Your task to perform on an android device: toggle javascript in the chrome app Image 0: 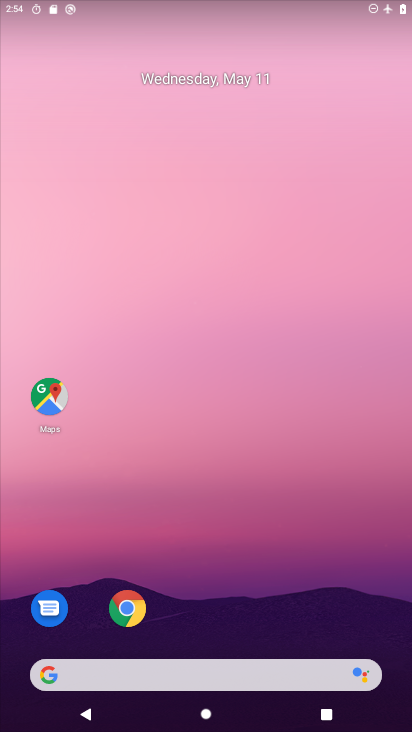
Step 0: drag from (316, 286) to (313, 177)
Your task to perform on an android device: toggle javascript in the chrome app Image 1: 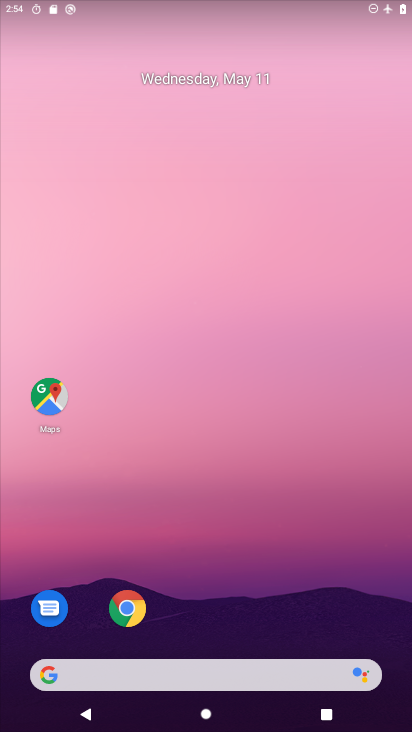
Step 1: click (133, 623)
Your task to perform on an android device: toggle javascript in the chrome app Image 2: 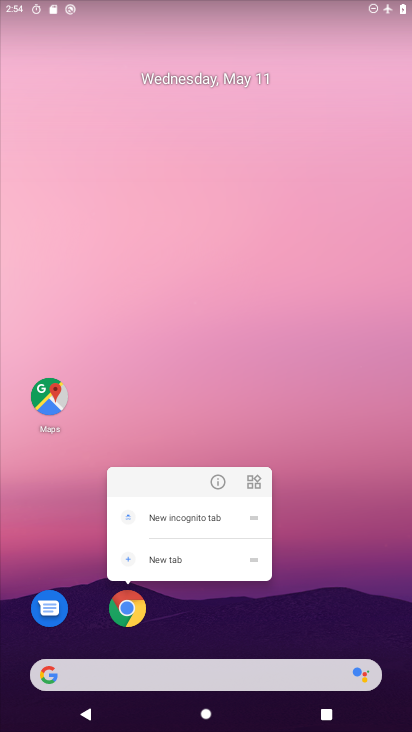
Step 2: click (124, 617)
Your task to perform on an android device: toggle javascript in the chrome app Image 3: 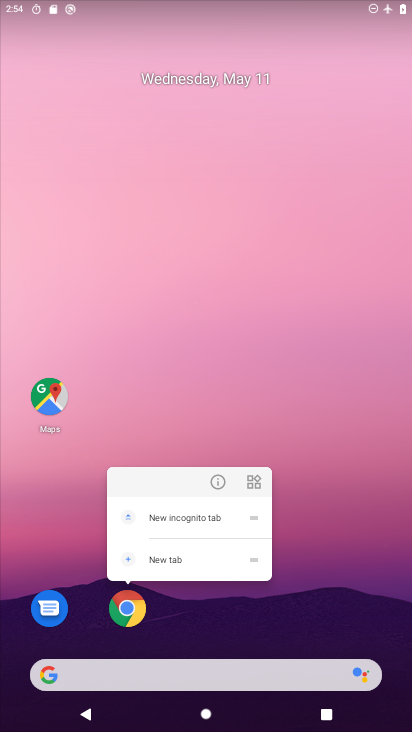
Step 3: click (123, 616)
Your task to perform on an android device: toggle javascript in the chrome app Image 4: 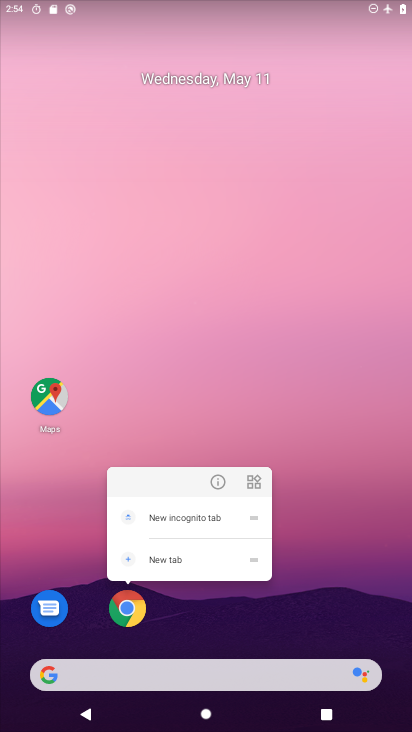
Step 4: click (125, 616)
Your task to perform on an android device: toggle javascript in the chrome app Image 5: 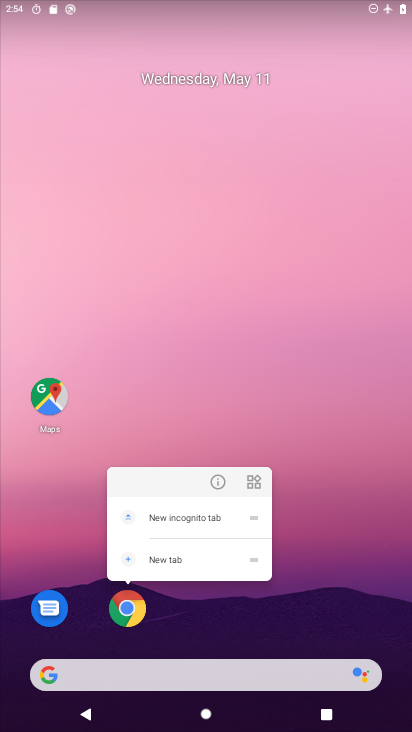
Step 5: click (126, 610)
Your task to perform on an android device: toggle javascript in the chrome app Image 6: 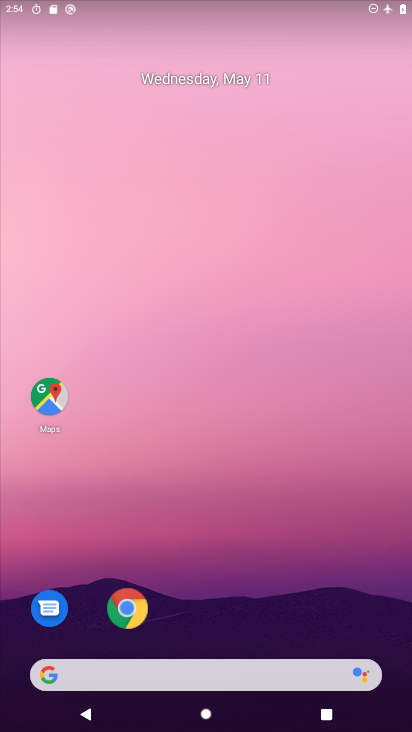
Step 6: click (126, 610)
Your task to perform on an android device: toggle javascript in the chrome app Image 7: 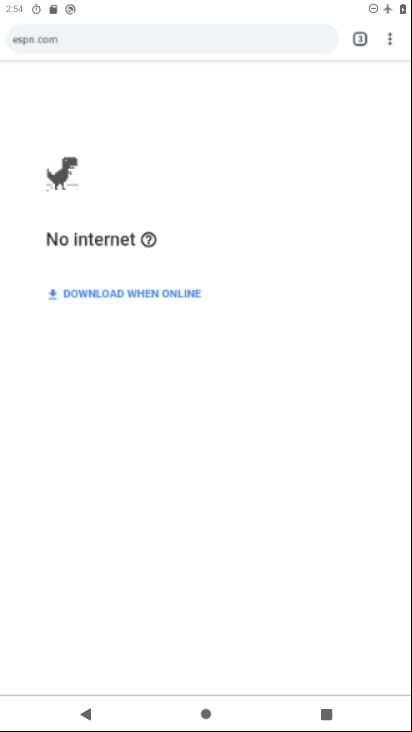
Step 7: click (126, 610)
Your task to perform on an android device: toggle javascript in the chrome app Image 8: 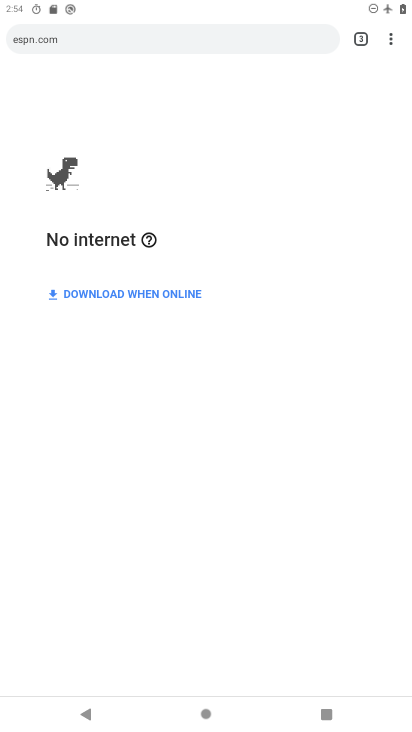
Step 8: click (387, 36)
Your task to perform on an android device: toggle javascript in the chrome app Image 9: 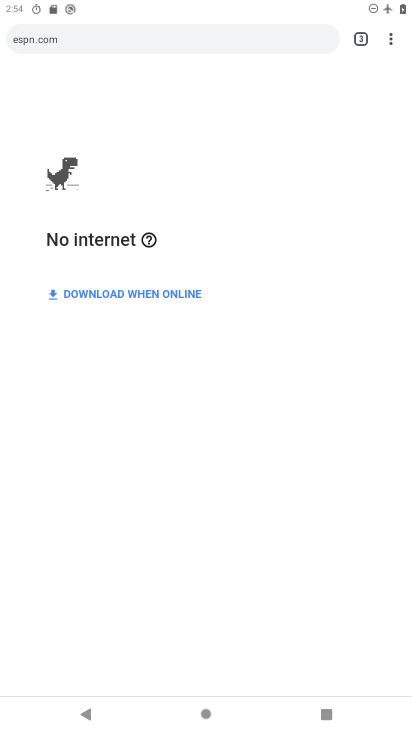
Step 9: click (387, 35)
Your task to perform on an android device: toggle javascript in the chrome app Image 10: 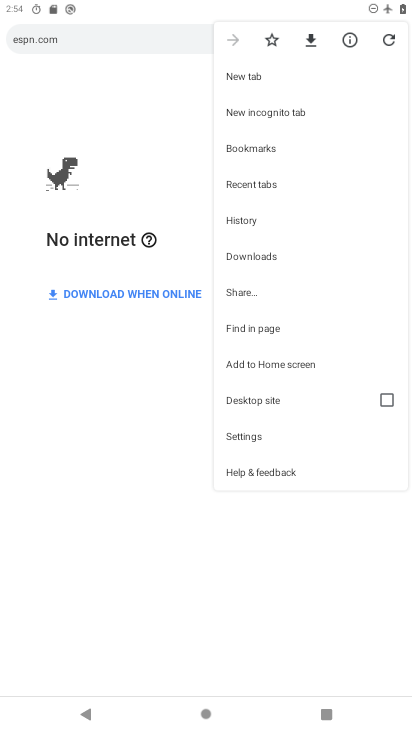
Step 10: click (239, 435)
Your task to perform on an android device: toggle javascript in the chrome app Image 11: 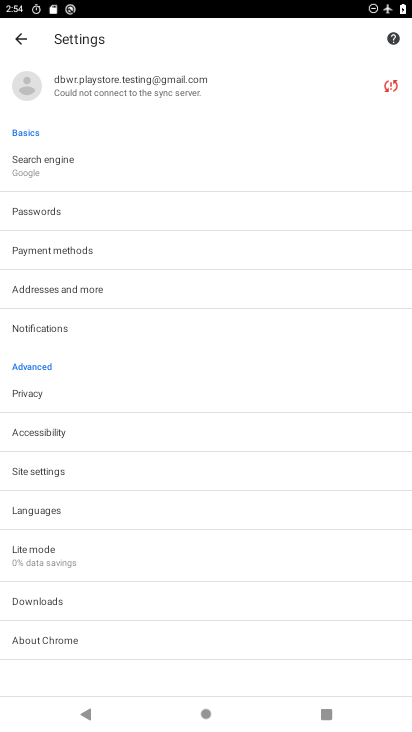
Step 11: click (146, 459)
Your task to perform on an android device: toggle javascript in the chrome app Image 12: 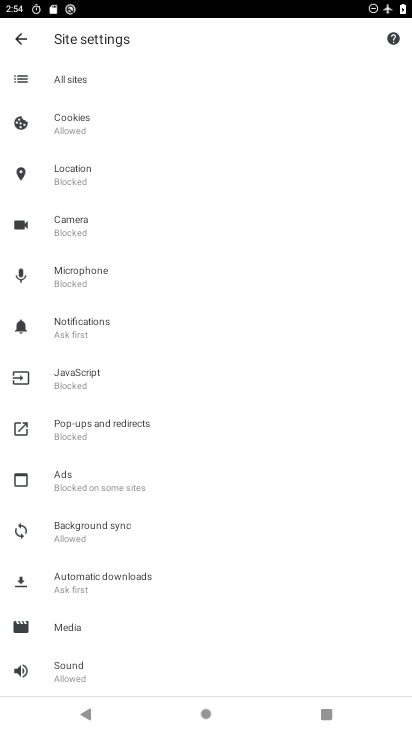
Step 12: click (94, 363)
Your task to perform on an android device: toggle javascript in the chrome app Image 13: 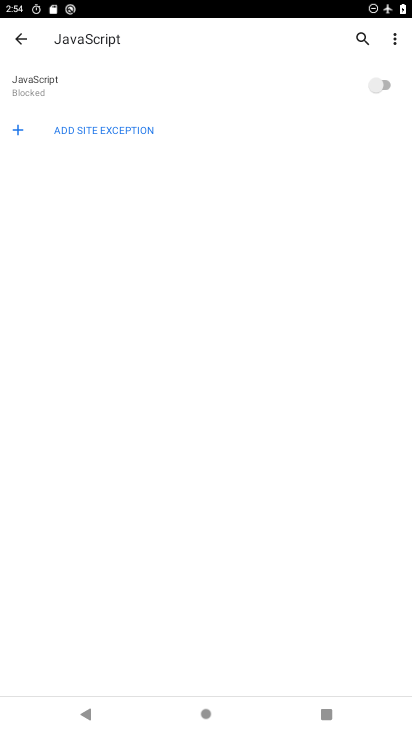
Step 13: click (382, 79)
Your task to perform on an android device: toggle javascript in the chrome app Image 14: 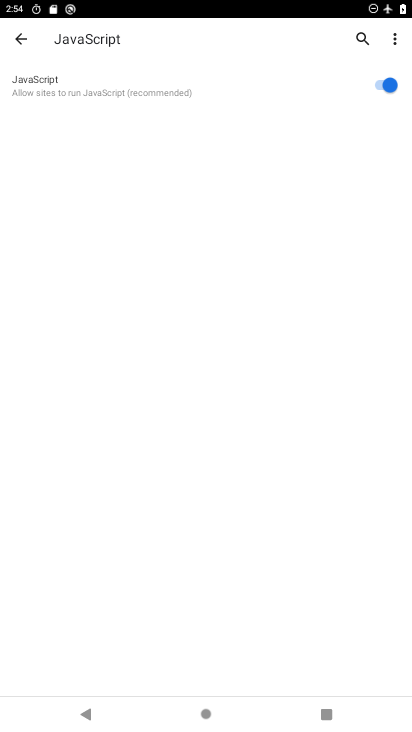
Step 14: task complete